Your task to perform on an android device: toggle sleep mode Image 0: 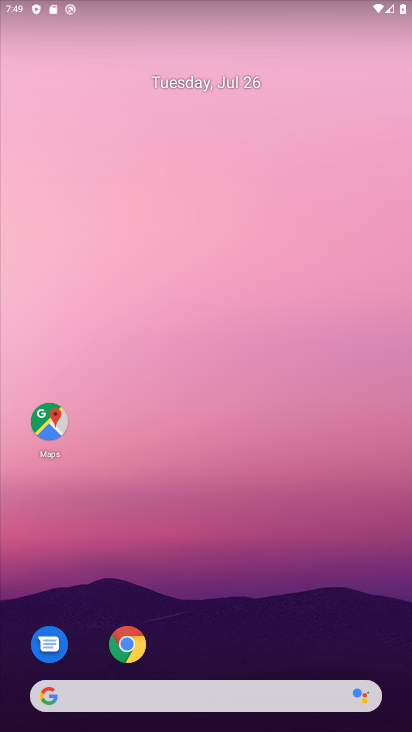
Step 0: drag from (240, 617) to (241, 172)
Your task to perform on an android device: toggle sleep mode Image 1: 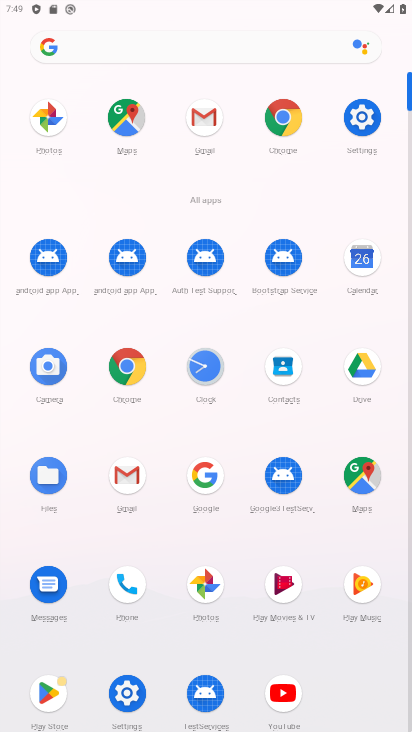
Step 1: click (364, 119)
Your task to perform on an android device: toggle sleep mode Image 2: 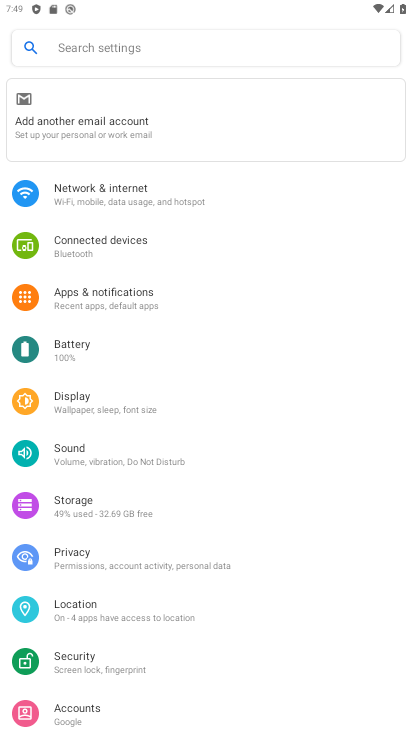
Step 2: task complete